Your task to perform on an android device: What's on my calendar today? Image 0: 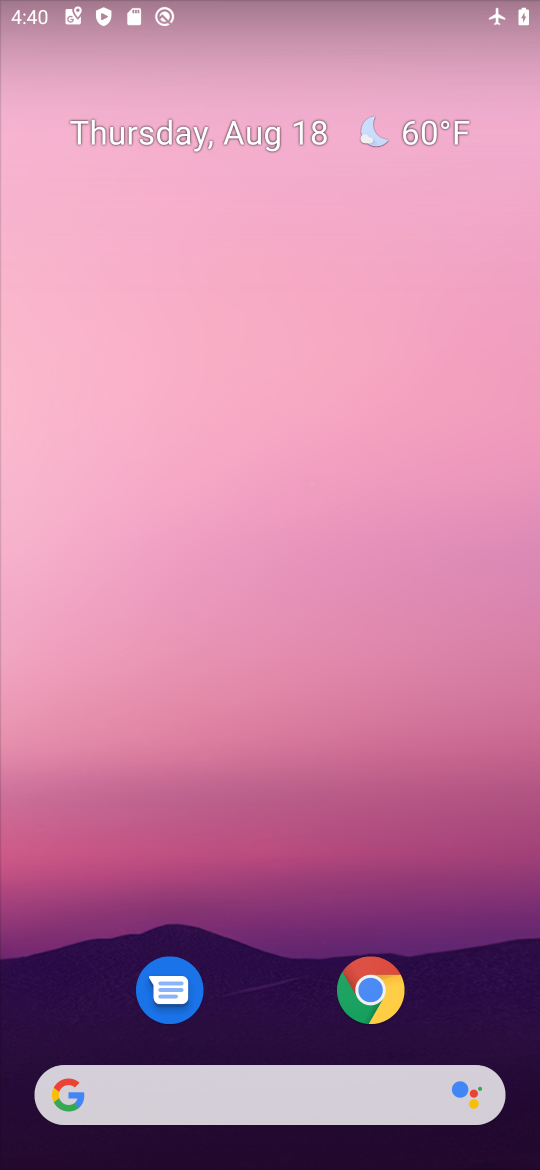
Step 0: click (232, 154)
Your task to perform on an android device: What's on my calendar today? Image 1: 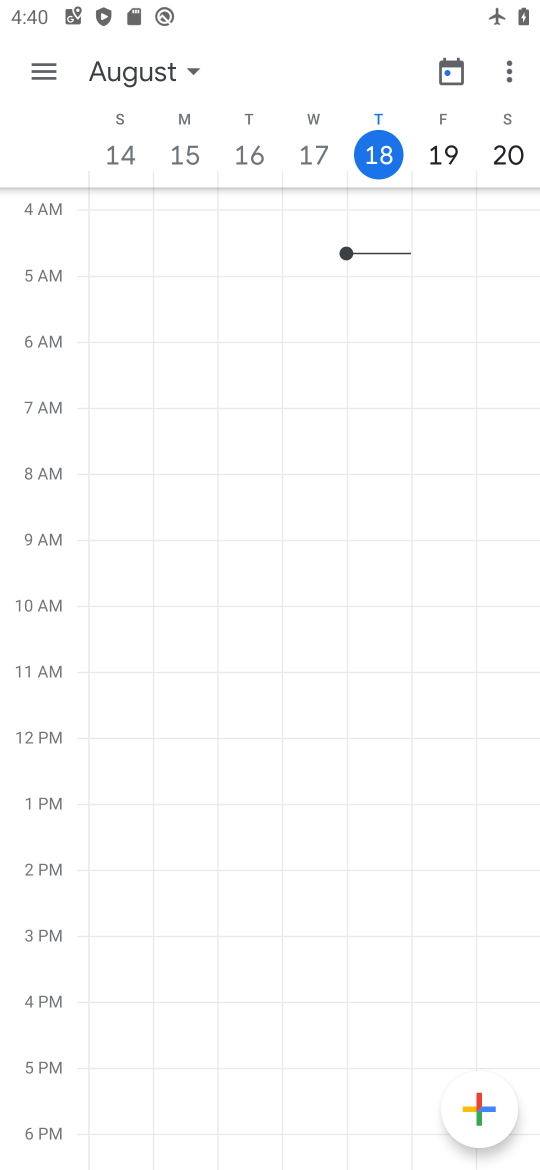
Step 1: click (385, 159)
Your task to perform on an android device: What's on my calendar today? Image 2: 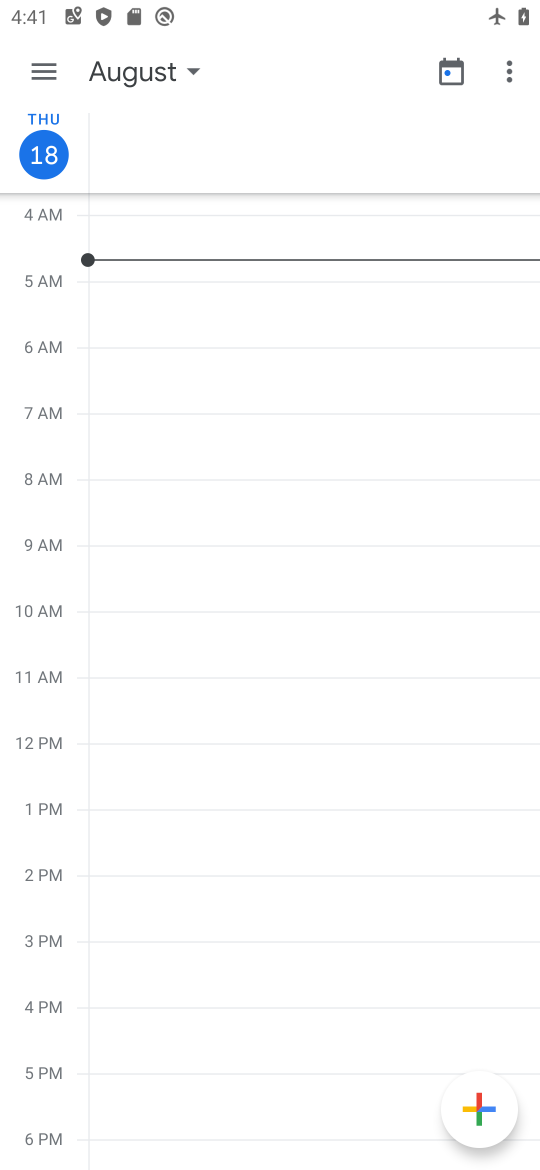
Step 2: task complete